Your task to perform on an android device: allow cookies in the chrome app Image 0: 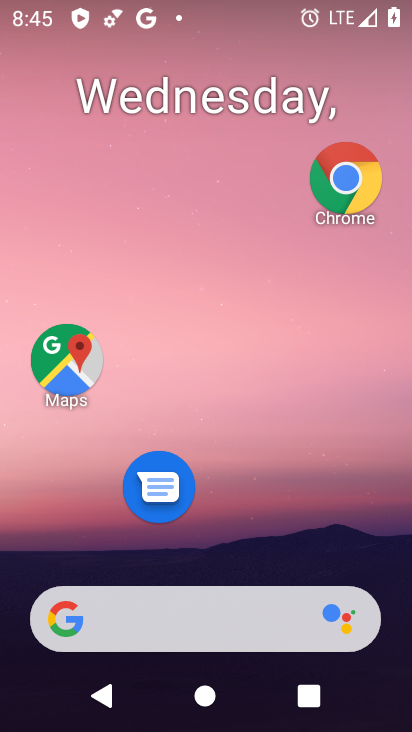
Step 0: drag from (223, 638) to (260, 217)
Your task to perform on an android device: allow cookies in the chrome app Image 1: 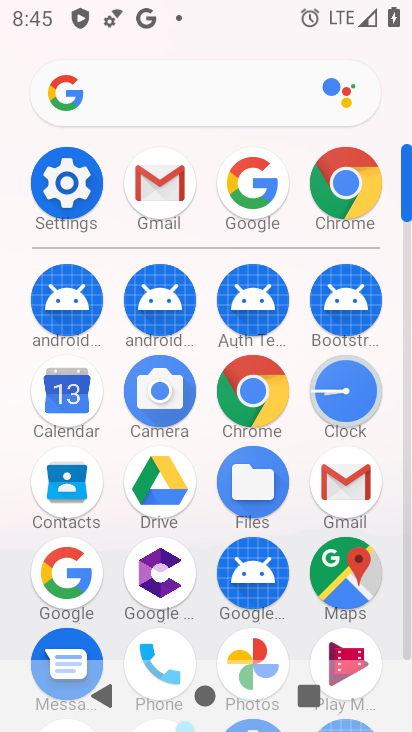
Step 1: click (262, 401)
Your task to perform on an android device: allow cookies in the chrome app Image 2: 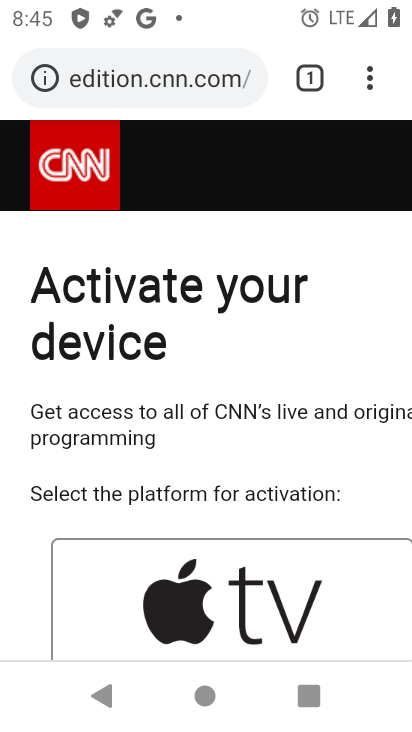
Step 2: click (374, 92)
Your task to perform on an android device: allow cookies in the chrome app Image 3: 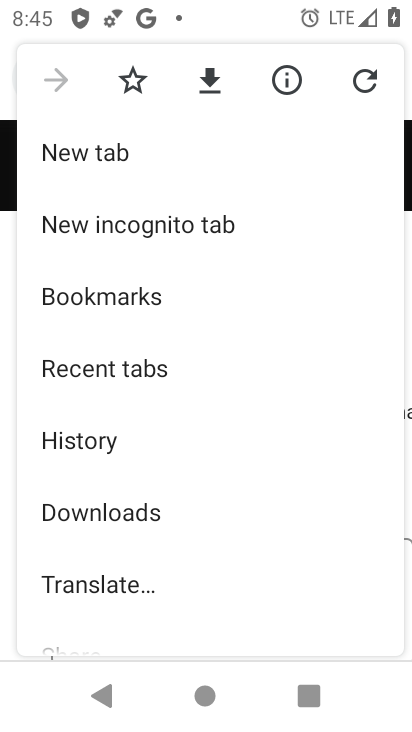
Step 3: drag from (180, 558) to (222, 268)
Your task to perform on an android device: allow cookies in the chrome app Image 4: 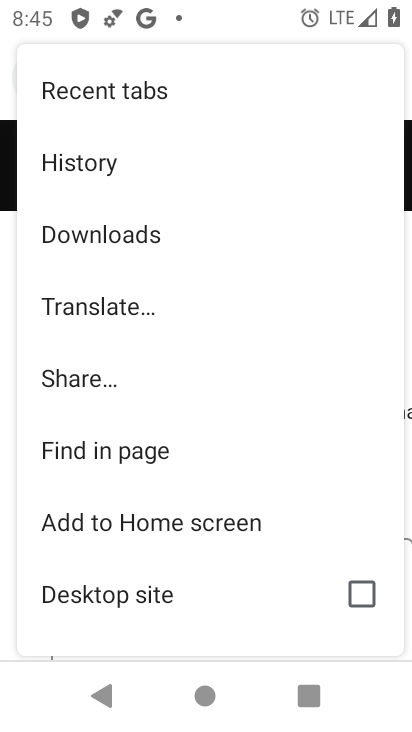
Step 4: drag from (185, 512) to (210, 308)
Your task to perform on an android device: allow cookies in the chrome app Image 5: 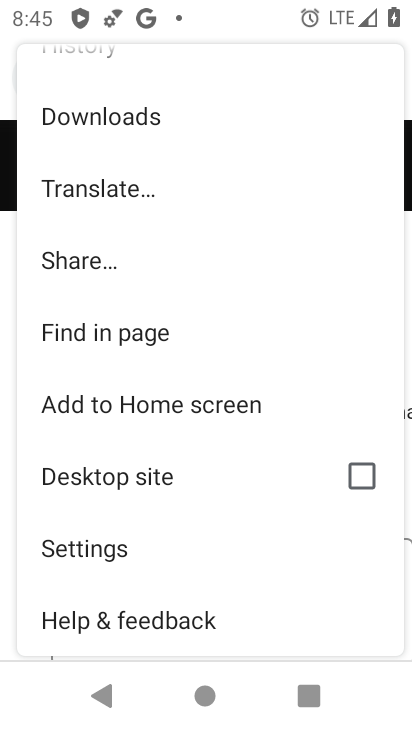
Step 5: drag from (180, 521) to (206, 323)
Your task to perform on an android device: allow cookies in the chrome app Image 6: 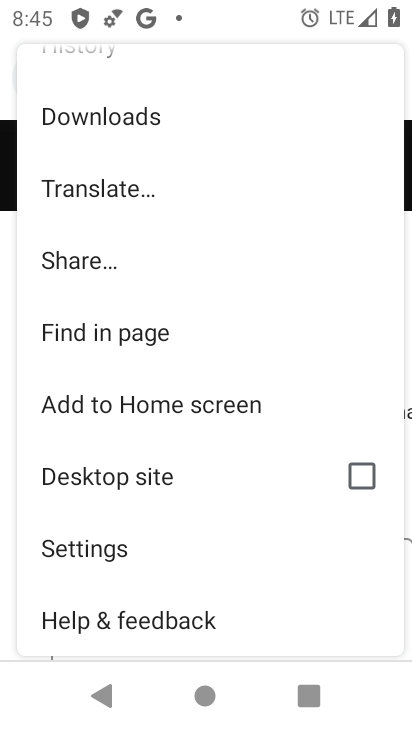
Step 6: click (112, 544)
Your task to perform on an android device: allow cookies in the chrome app Image 7: 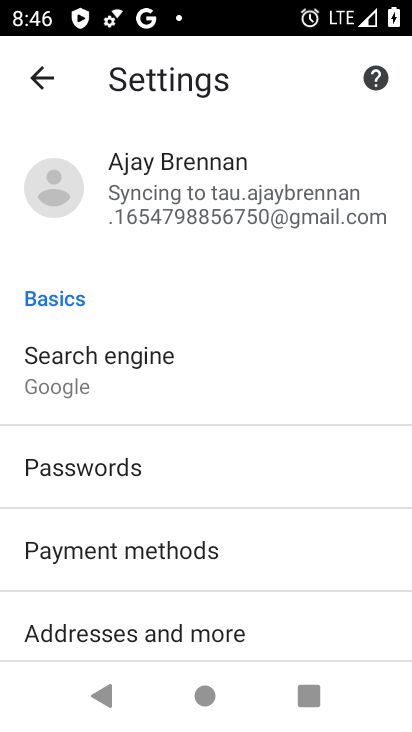
Step 7: drag from (131, 565) to (176, 316)
Your task to perform on an android device: allow cookies in the chrome app Image 8: 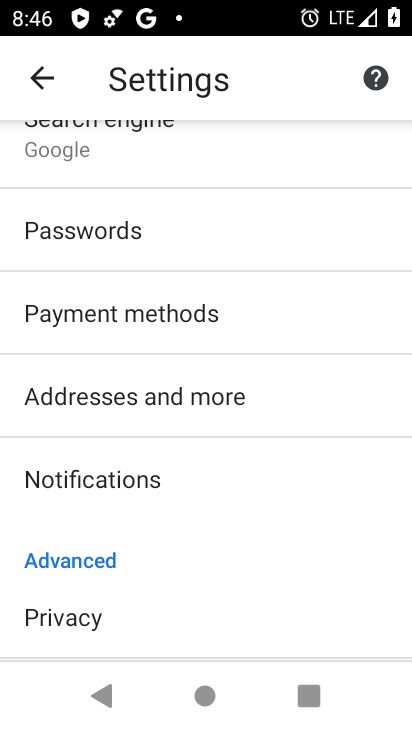
Step 8: drag from (134, 552) to (165, 322)
Your task to perform on an android device: allow cookies in the chrome app Image 9: 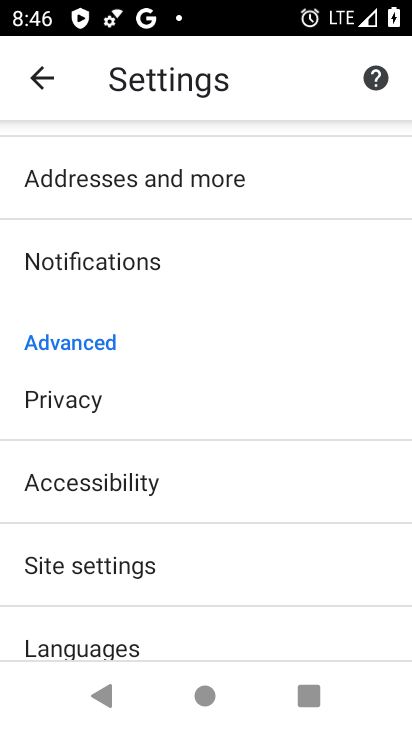
Step 9: click (129, 567)
Your task to perform on an android device: allow cookies in the chrome app Image 10: 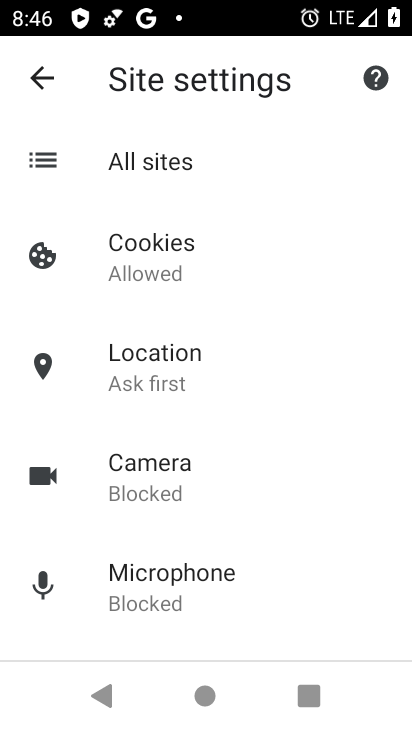
Step 10: click (180, 257)
Your task to perform on an android device: allow cookies in the chrome app Image 11: 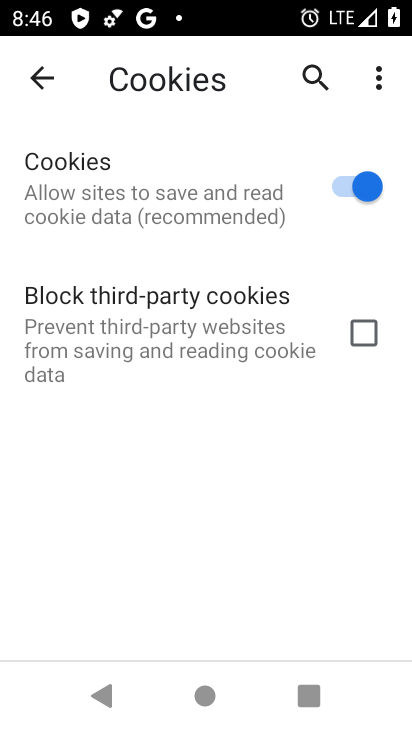
Step 11: task complete